Your task to perform on an android device: read, delete, or share a saved page in the chrome app Image 0: 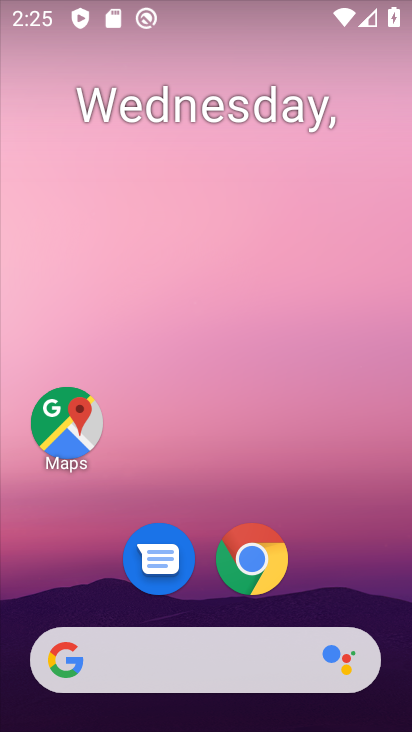
Step 0: click (251, 558)
Your task to perform on an android device: read, delete, or share a saved page in the chrome app Image 1: 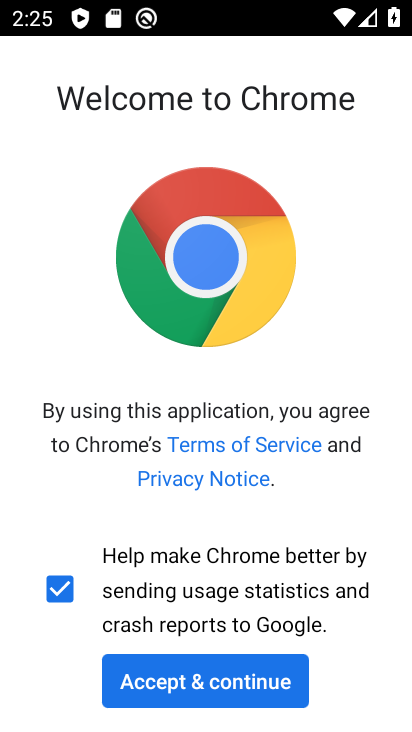
Step 1: click (244, 678)
Your task to perform on an android device: read, delete, or share a saved page in the chrome app Image 2: 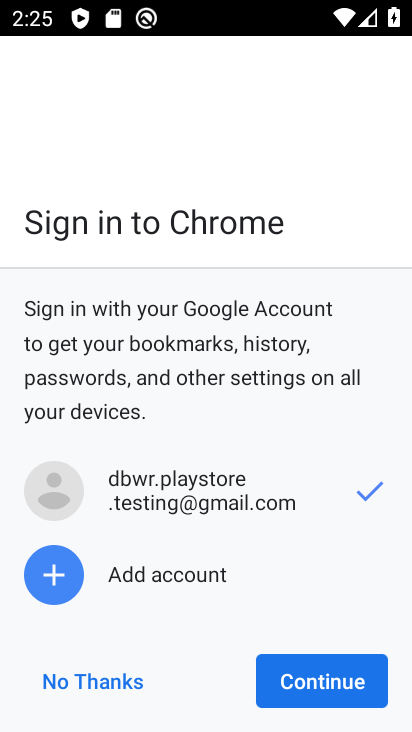
Step 2: click (312, 686)
Your task to perform on an android device: read, delete, or share a saved page in the chrome app Image 3: 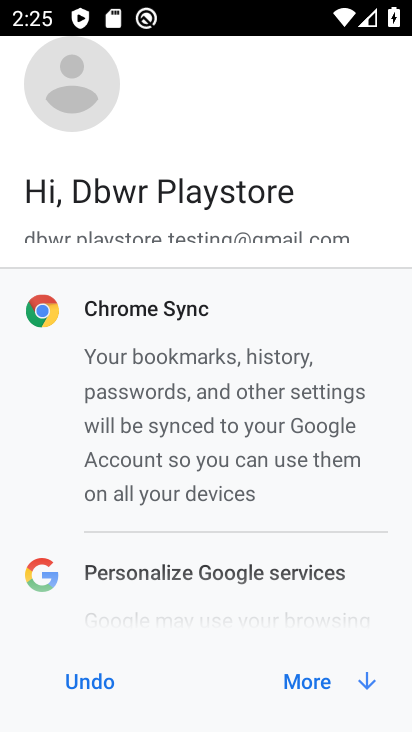
Step 3: click (310, 683)
Your task to perform on an android device: read, delete, or share a saved page in the chrome app Image 4: 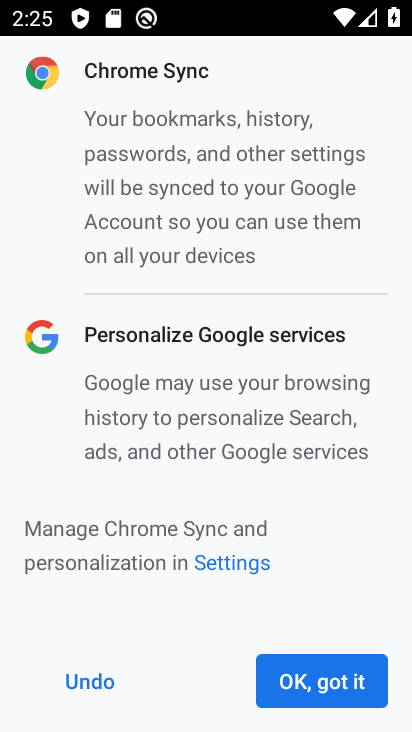
Step 4: click (310, 683)
Your task to perform on an android device: read, delete, or share a saved page in the chrome app Image 5: 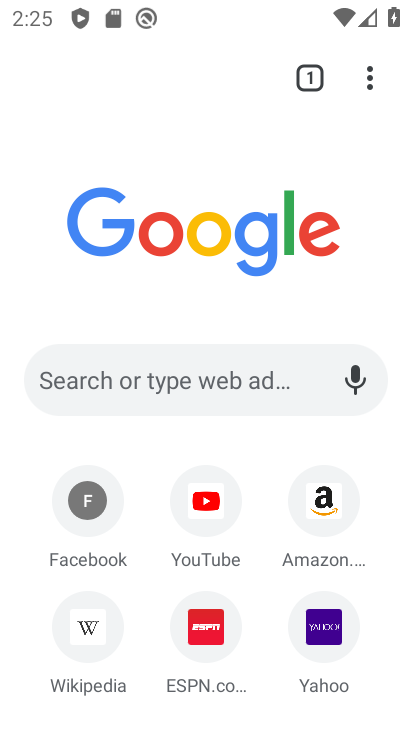
Step 5: click (369, 84)
Your task to perform on an android device: read, delete, or share a saved page in the chrome app Image 6: 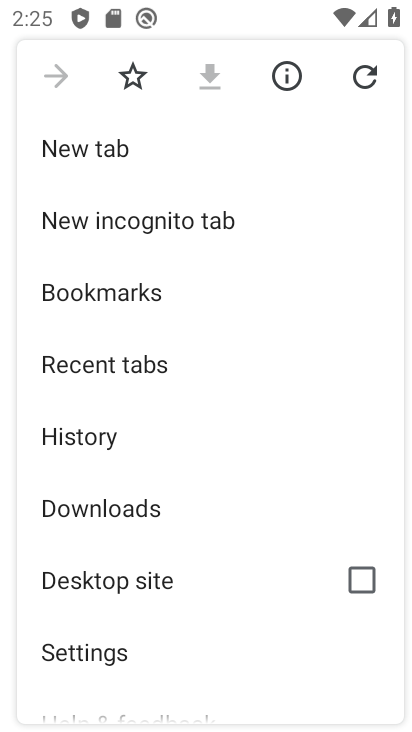
Step 6: drag from (161, 632) to (161, 527)
Your task to perform on an android device: read, delete, or share a saved page in the chrome app Image 7: 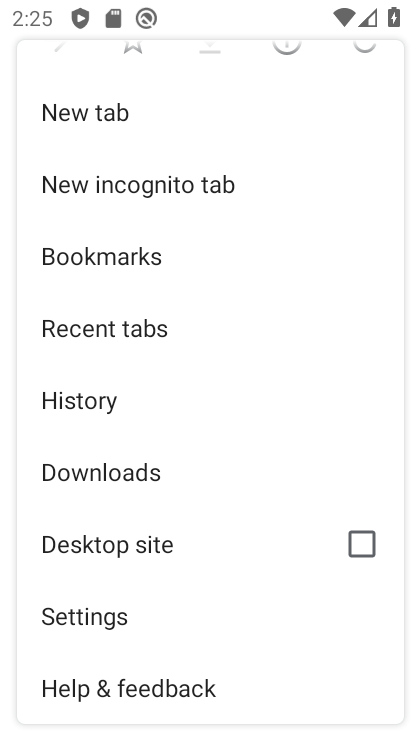
Step 7: click (100, 467)
Your task to perform on an android device: read, delete, or share a saved page in the chrome app Image 8: 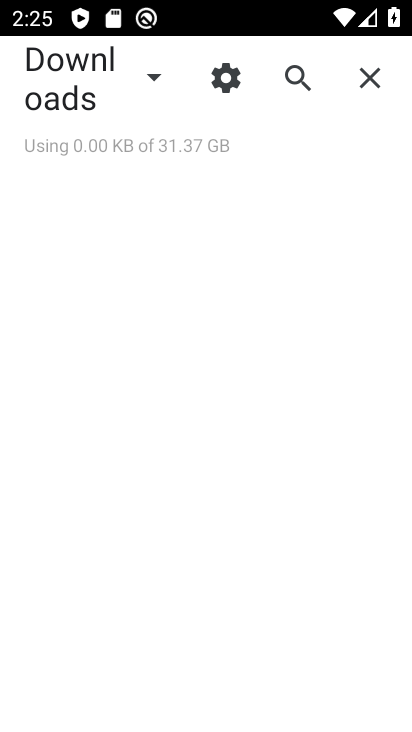
Step 8: click (153, 78)
Your task to perform on an android device: read, delete, or share a saved page in the chrome app Image 9: 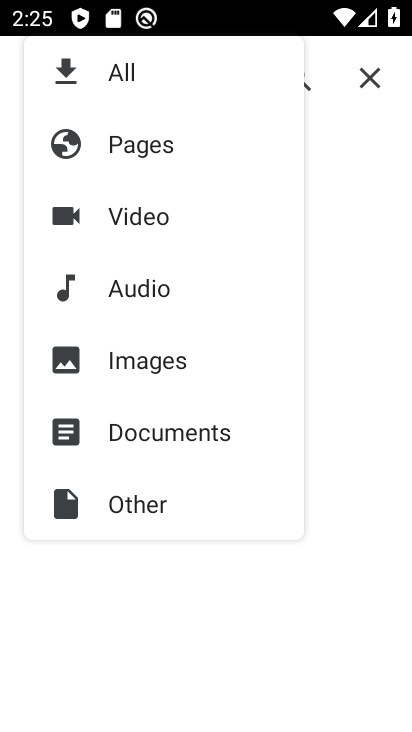
Step 9: click (154, 147)
Your task to perform on an android device: read, delete, or share a saved page in the chrome app Image 10: 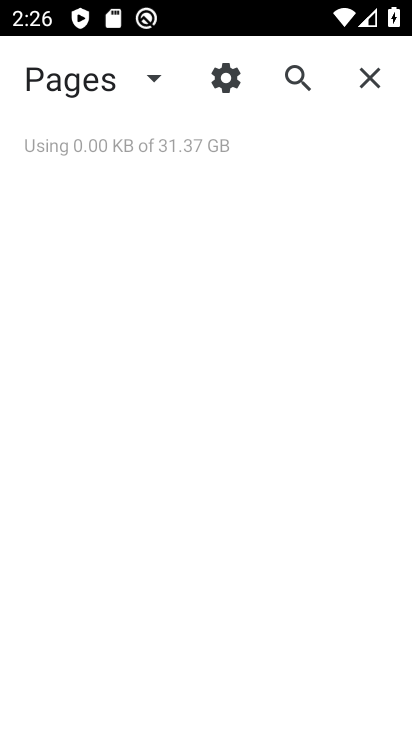
Step 10: task complete